Your task to perform on an android device: add a contact in the contacts app Image 0: 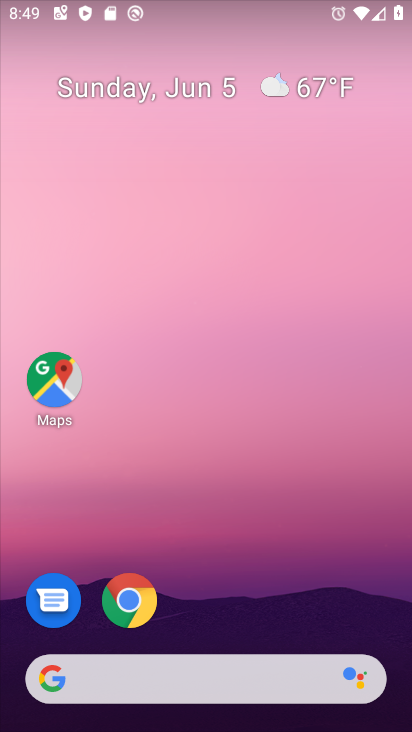
Step 0: drag from (349, 601) to (299, 34)
Your task to perform on an android device: add a contact in the contacts app Image 1: 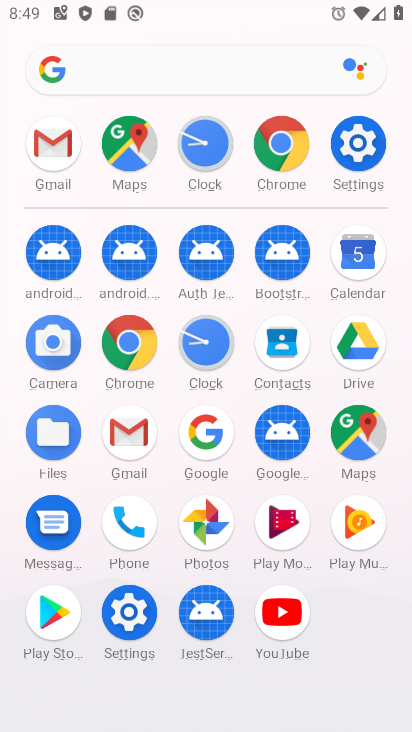
Step 1: click (274, 353)
Your task to perform on an android device: add a contact in the contacts app Image 2: 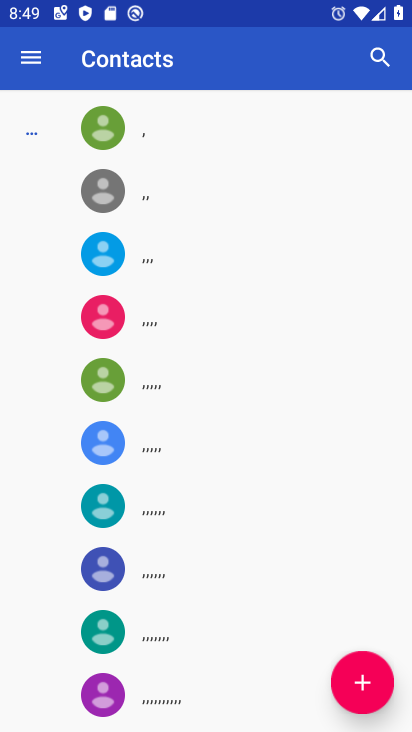
Step 2: click (359, 683)
Your task to perform on an android device: add a contact in the contacts app Image 3: 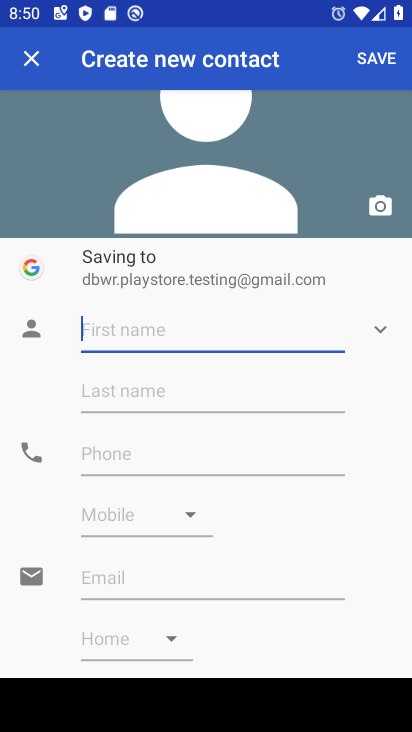
Step 3: type "admi"
Your task to perform on an android device: add a contact in the contacts app Image 4: 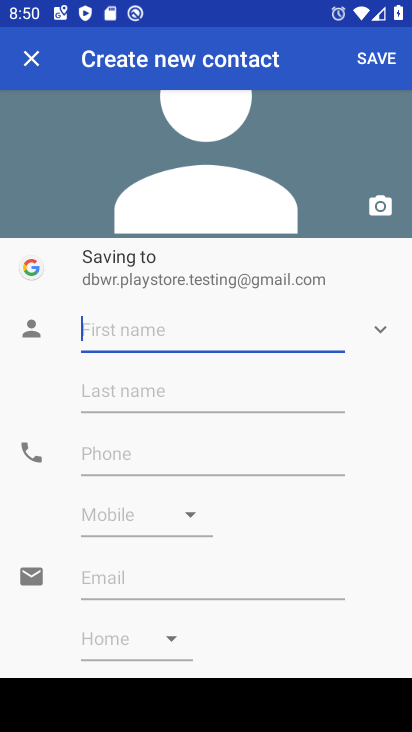
Step 4: click (389, 60)
Your task to perform on an android device: add a contact in the contacts app Image 5: 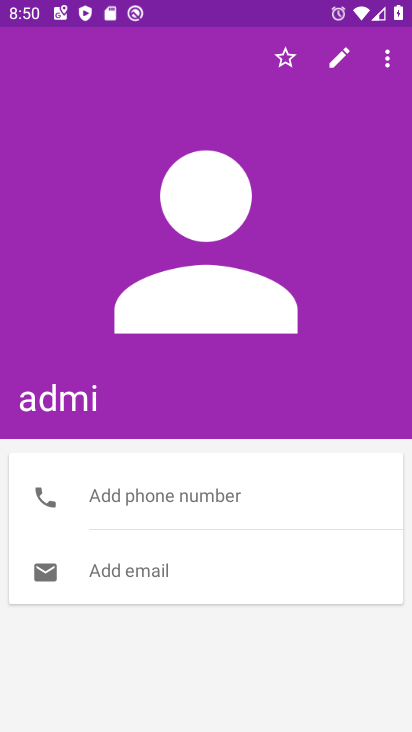
Step 5: task complete